Your task to perform on an android device: check the backup settings in the google photos Image 0: 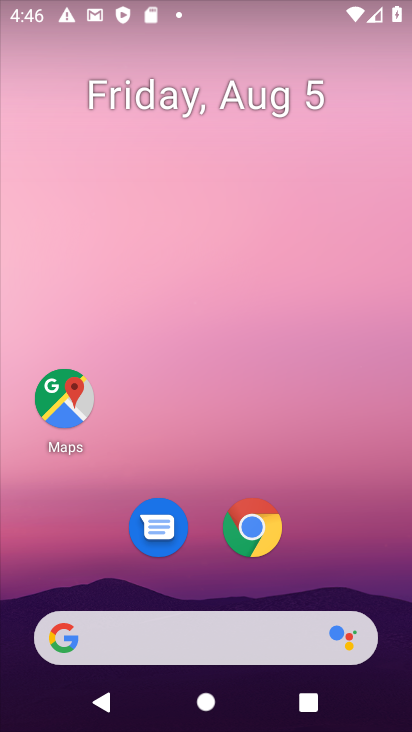
Step 0: drag from (205, 513) to (116, 5)
Your task to perform on an android device: check the backup settings in the google photos Image 1: 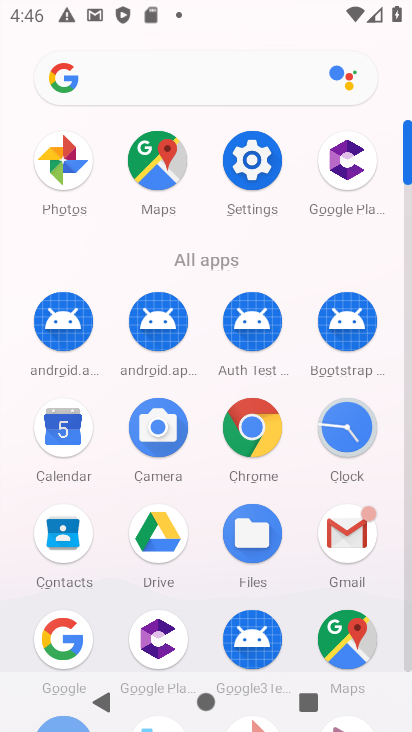
Step 1: drag from (218, 588) to (197, 190)
Your task to perform on an android device: check the backup settings in the google photos Image 2: 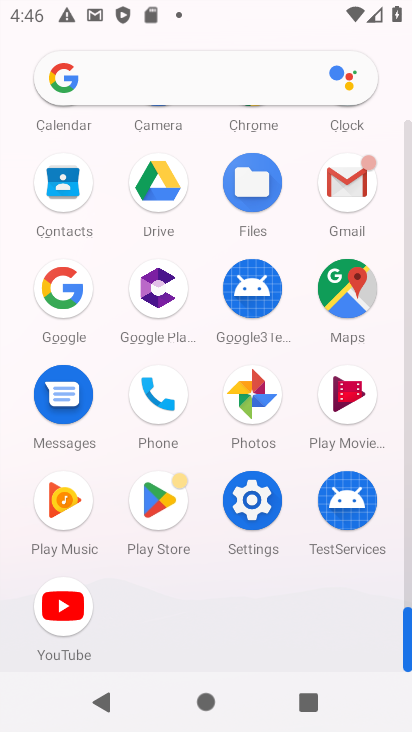
Step 2: click (256, 389)
Your task to perform on an android device: check the backup settings in the google photos Image 3: 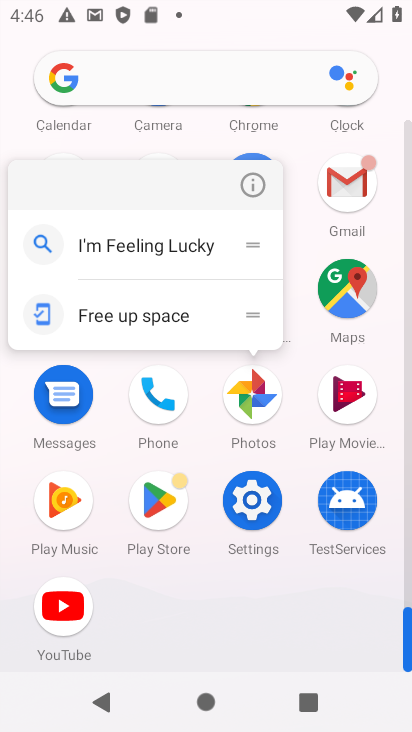
Step 3: click (250, 186)
Your task to perform on an android device: check the backup settings in the google photos Image 4: 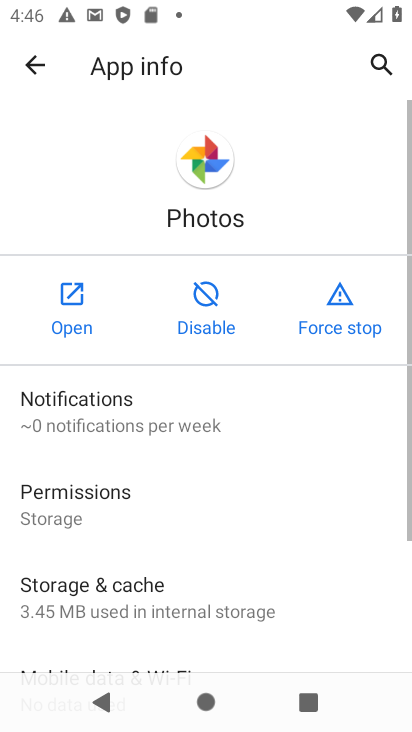
Step 4: click (76, 285)
Your task to perform on an android device: check the backup settings in the google photos Image 5: 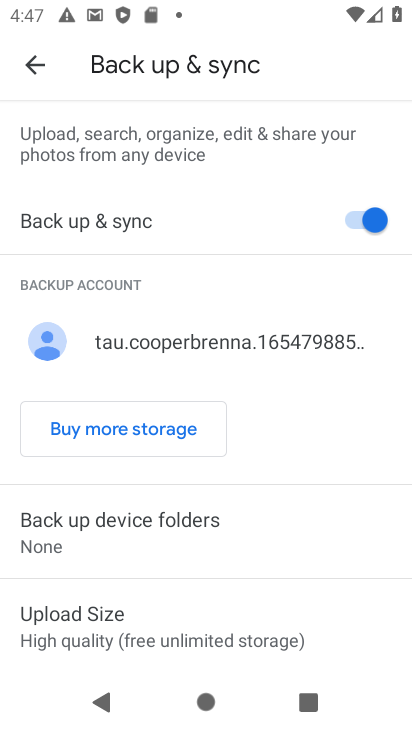
Step 5: task complete